Your task to perform on an android device: check the backup settings in the google photos Image 0: 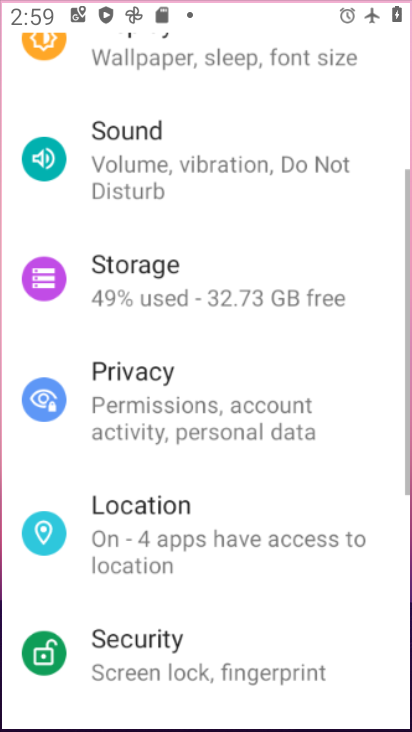
Step 0: drag from (281, 543) to (273, 149)
Your task to perform on an android device: check the backup settings in the google photos Image 1: 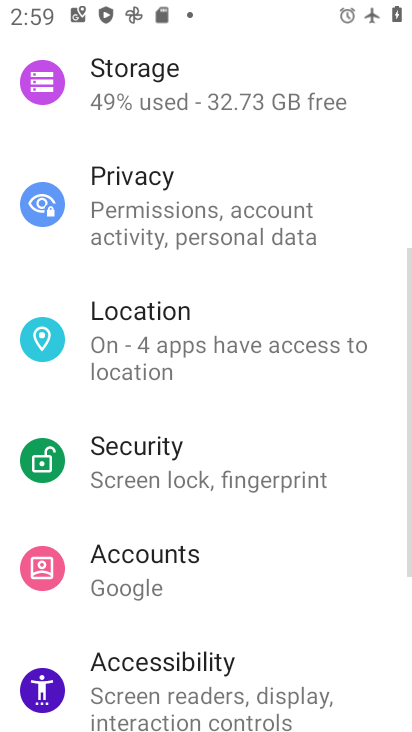
Step 1: drag from (273, 149) to (261, 568)
Your task to perform on an android device: check the backup settings in the google photos Image 2: 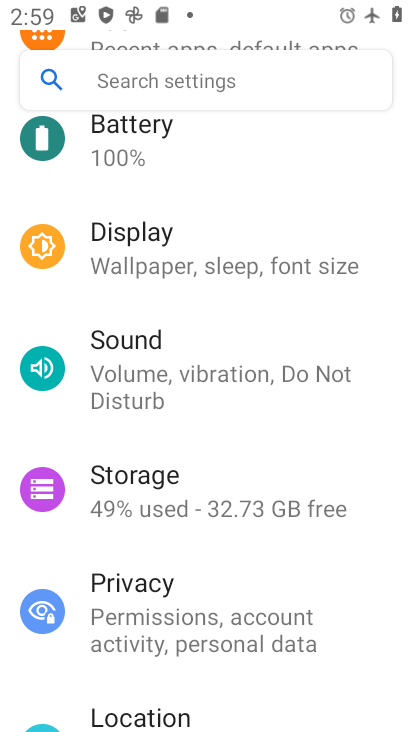
Step 2: drag from (302, 217) to (314, 368)
Your task to perform on an android device: check the backup settings in the google photos Image 3: 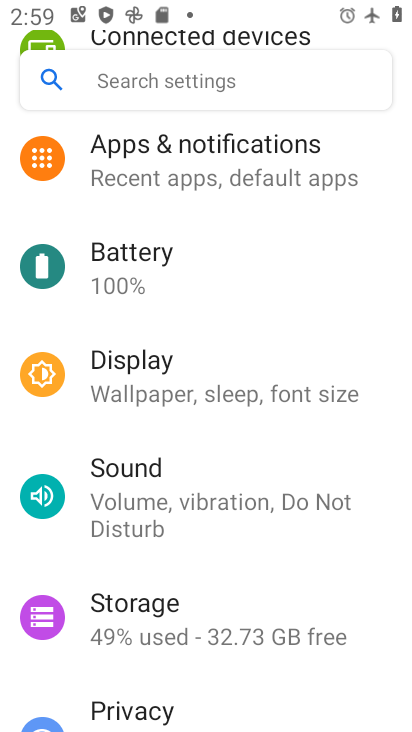
Step 3: drag from (268, 214) to (268, 541)
Your task to perform on an android device: check the backup settings in the google photos Image 4: 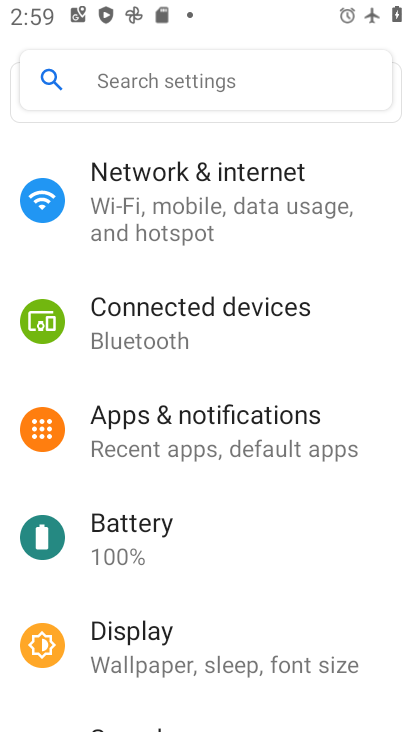
Step 4: click (267, 227)
Your task to perform on an android device: check the backup settings in the google photos Image 5: 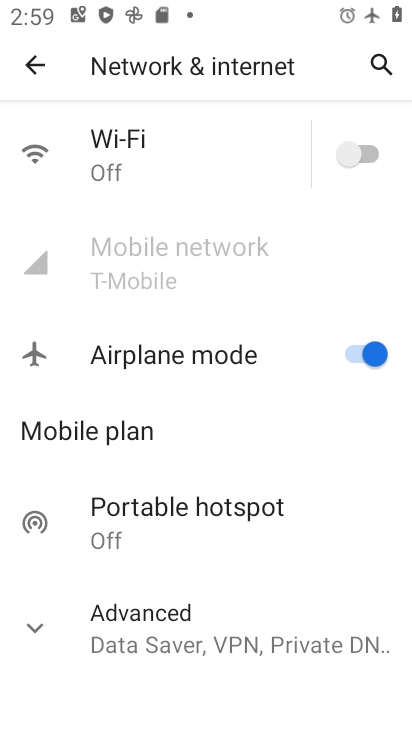
Step 5: click (371, 175)
Your task to perform on an android device: check the backup settings in the google photos Image 6: 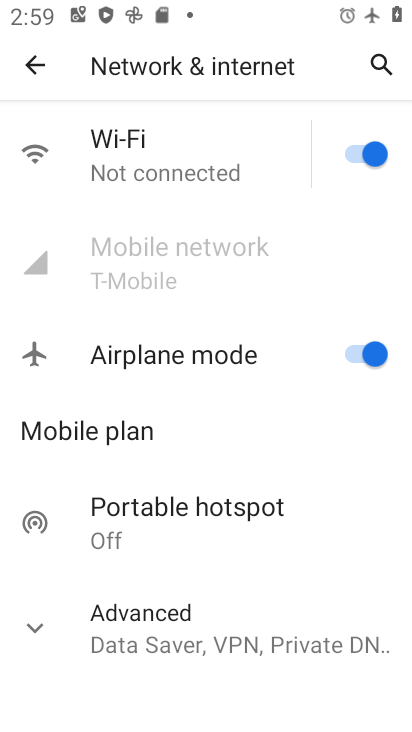
Step 6: click (380, 351)
Your task to perform on an android device: check the backup settings in the google photos Image 7: 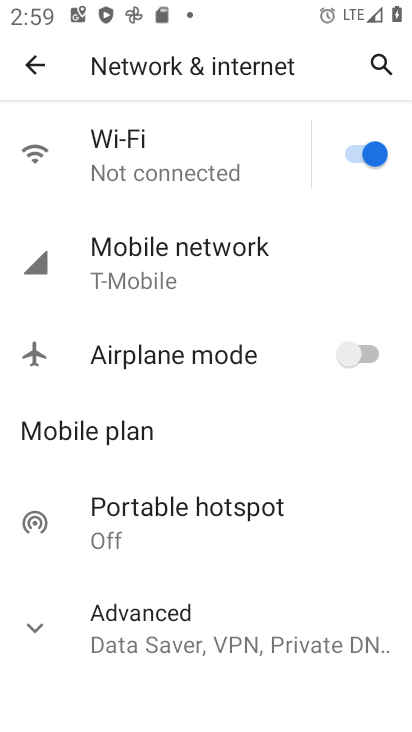
Step 7: task complete